Your task to perform on an android device: turn on data saver in the chrome app Image 0: 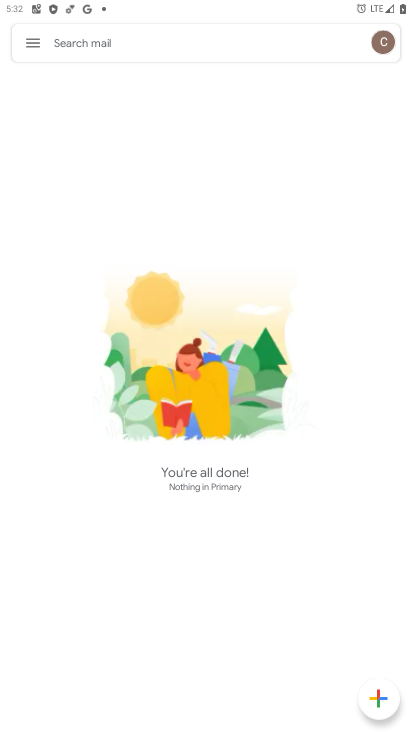
Step 0: press home button
Your task to perform on an android device: turn on data saver in the chrome app Image 1: 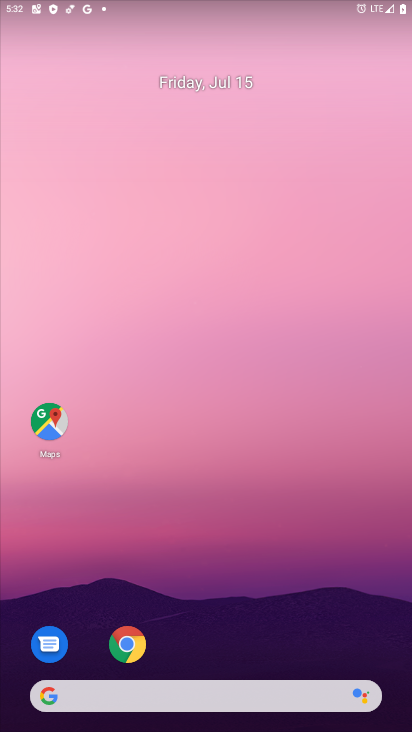
Step 1: drag from (197, 675) to (202, 39)
Your task to perform on an android device: turn on data saver in the chrome app Image 2: 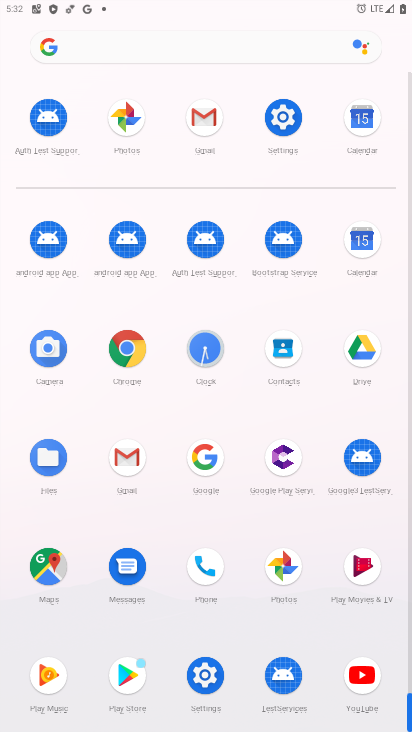
Step 2: click (128, 341)
Your task to perform on an android device: turn on data saver in the chrome app Image 3: 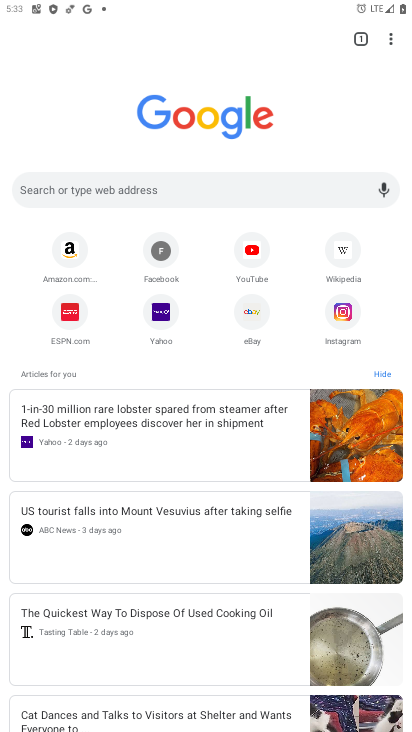
Step 3: click (392, 43)
Your task to perform on an android device: turn on data saver in the chrome app Image 4: 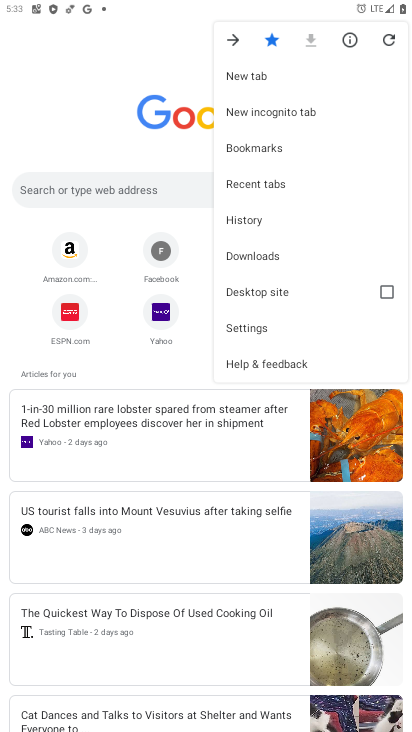
Step 4: click (247, 327)
Your task to perform on an android device: turn on data saver in the chrome app Image 5: 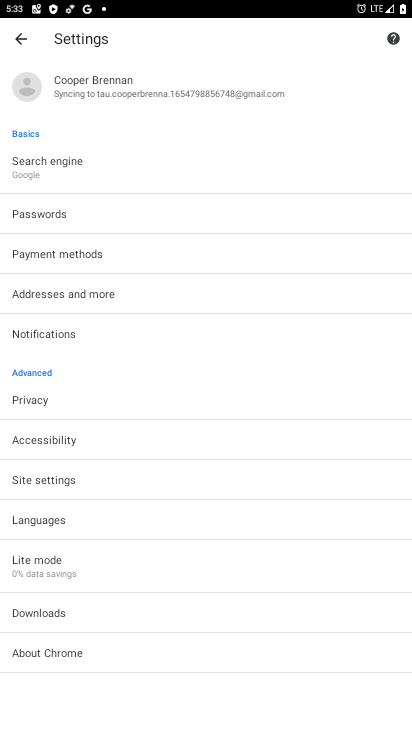
Step 5: click (54, 575)
Your task to perform on an android device: turn on data saver in the chrome app Image 6: 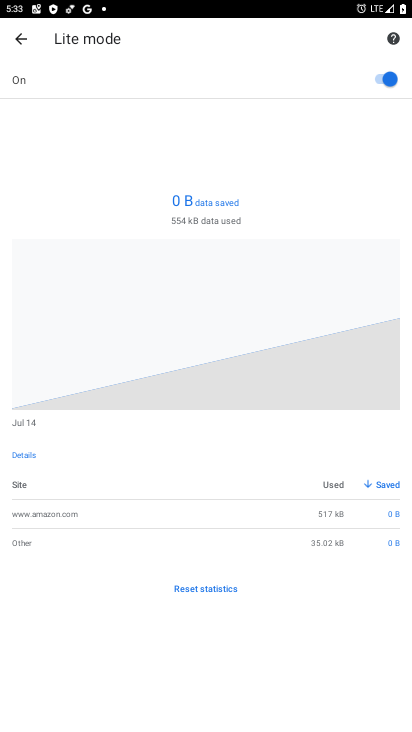
Step 6: task complete